Your task to perform on an android device: find snoozed emails in the gmail app Image 0: 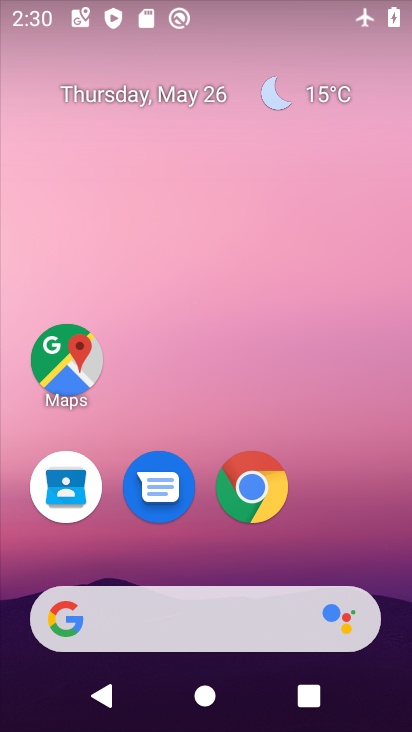
Step 0: drag from (207, 572) to (181, 189)
Your task to perform on an android device: find snoozed emails in the gmail app Image 1: 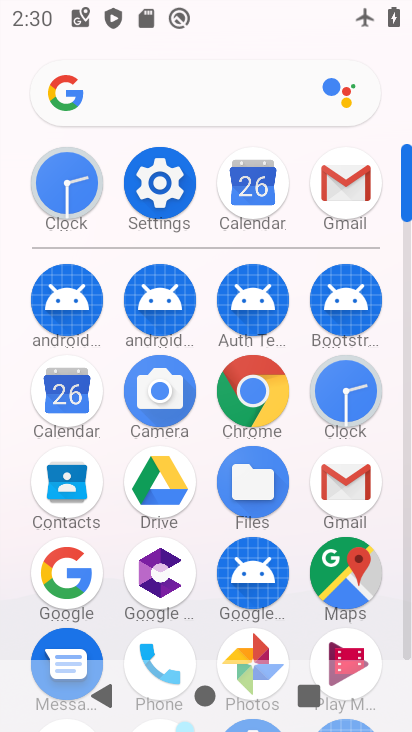
Step 1: click (321, 192)
Your task to perform on an android device: find snoozed emails in the gmail app Image 2: 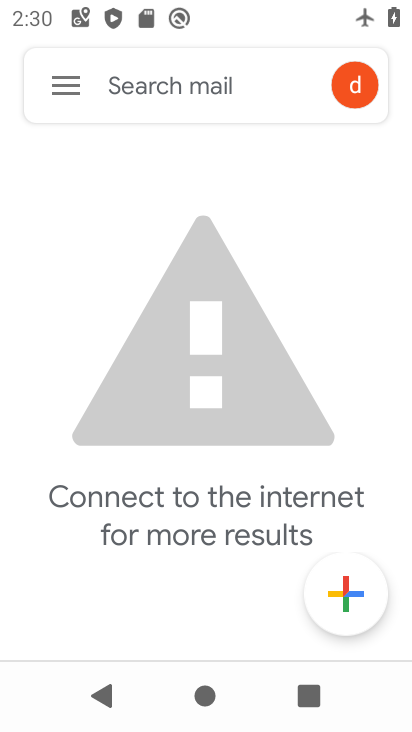
Step 2: click (61, 89)
Your task to perform on an android device: find snoozed emails in the gmail app Image 3: 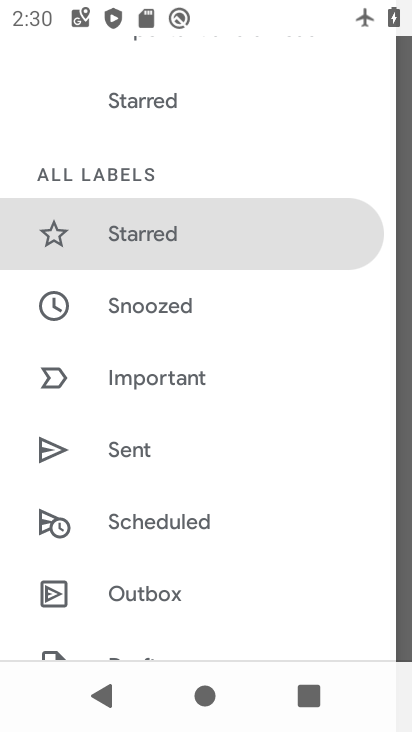
Step 3: click (208, 305)
Your task to perform on an android device: find snoozed emails in the gmail app Image 4: 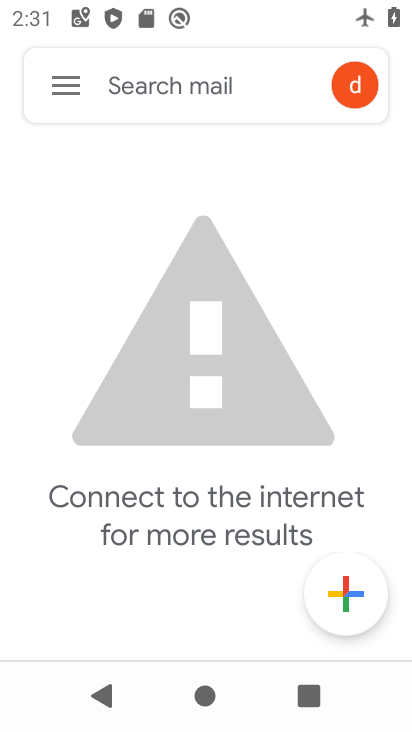
Step 4: click (75, 90)
Your task to perform on an android device: find snoozed emails in the gmail app Image 5: 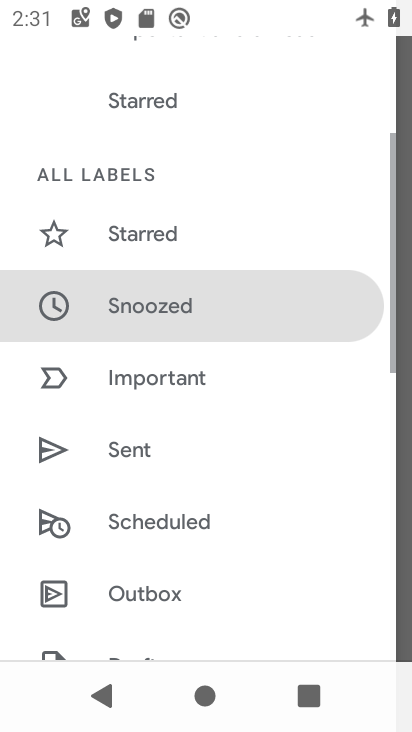
Step 5: click (131, 290)
Your task to perform on an android device: find snoozed emails in the gmail app Image 6: 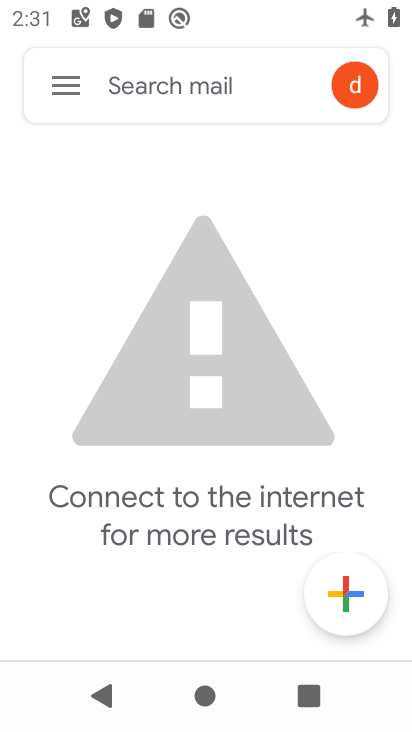
Step 6: task complete